Your task to perform on an android device: toggle improve location accuracy Image 0: 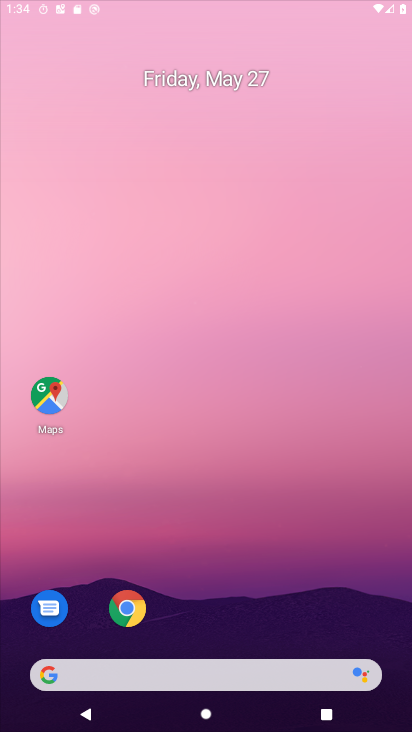
Step 0: click (196, 394)
Your task to perform on an android device: toggle improve location accuracy Image 1: 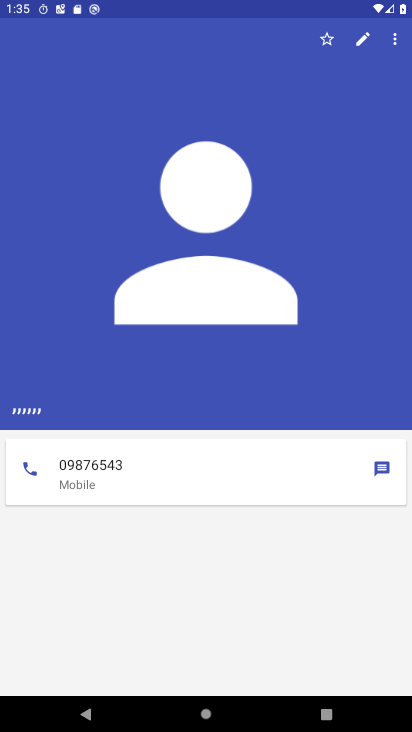
Step 1: press home button
Your task to perform on an android device: toggle improve location accuracy Image 2: 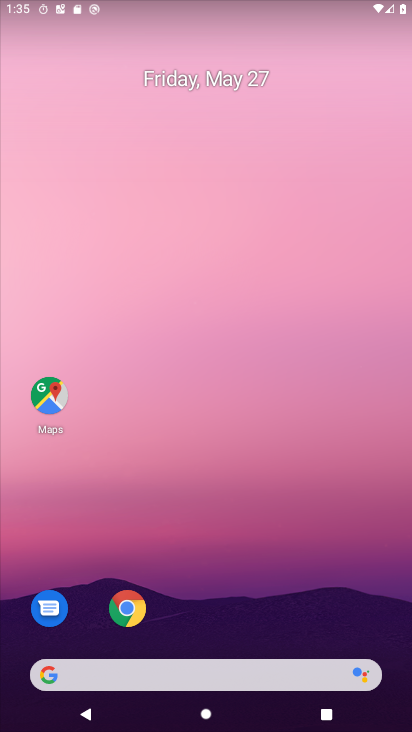
Step 2: drag from (392, 707) to (350, 20)
Your task to perform on an android device: toggle improve location accuracy Image 3: 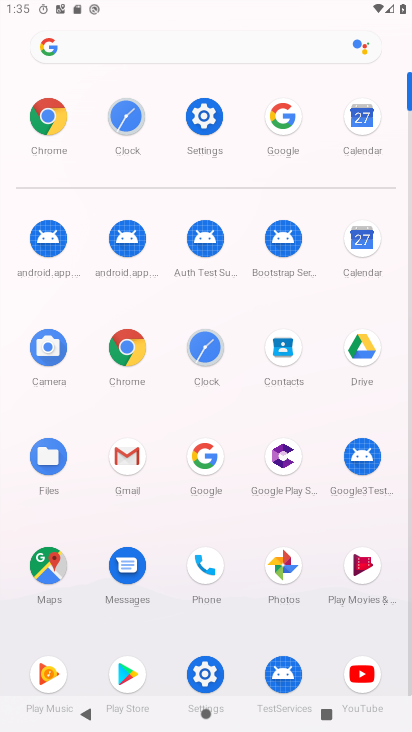
Step 3: click (196, 133)
Your task to perform on an android device: toggle improve location accuracy Image 4: 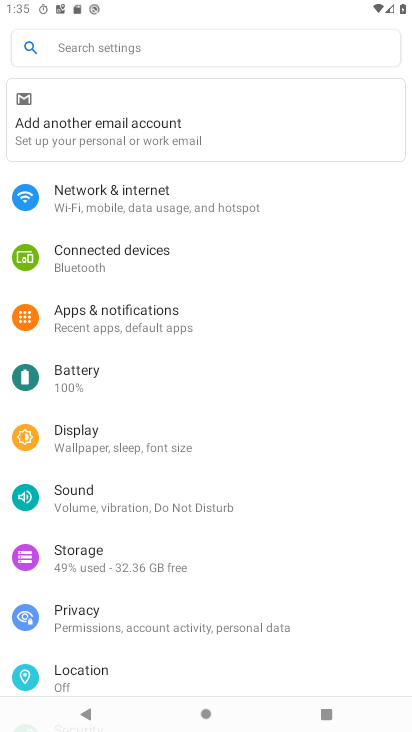
Step 4: click (81, 668)
Your task to perform on an android device: toggle improve location accuracy Image 5: 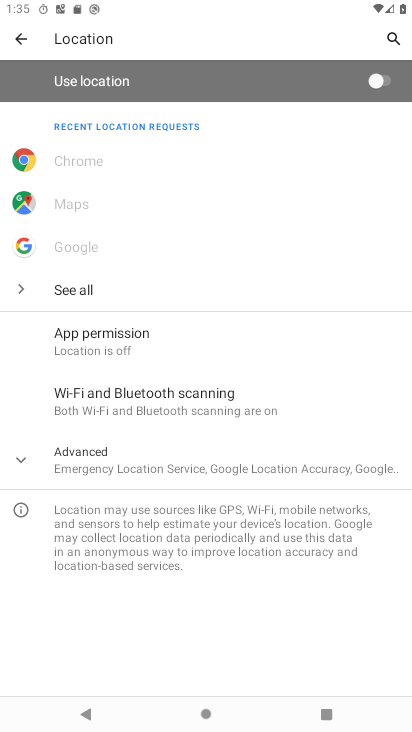
Step 5: click (73, 464)
Your task to perform on an android device: toggle improve location accuracy Image 6: 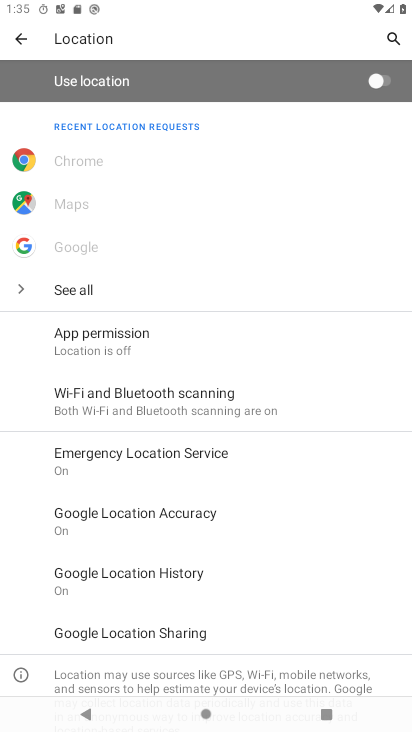
Step 6: click (142, 521)
Your task to perform on an android device: toggle improve location accuracy Image 7: 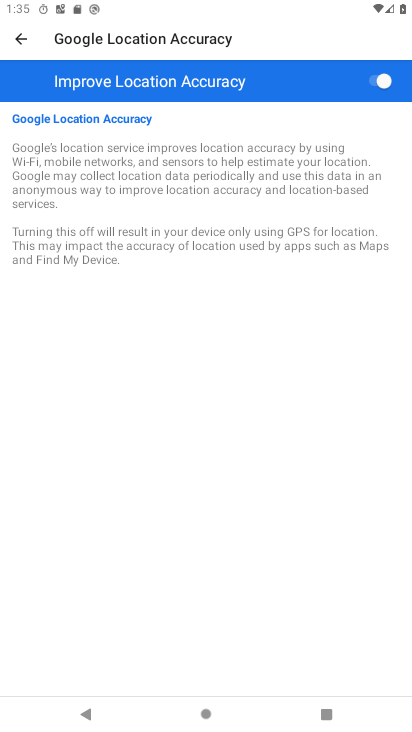
Step 7: click (368, 80)
Your task to perform on an android device: toggle improve location accuracy Image 8: 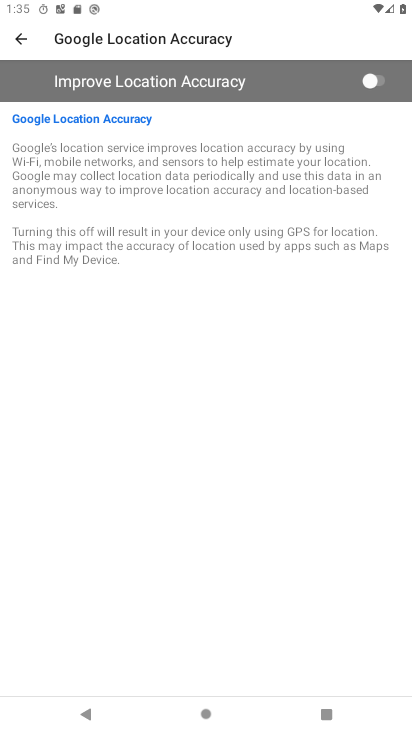
Step 8: task complete